Your task to perform on an android device: check data usage Image 0: 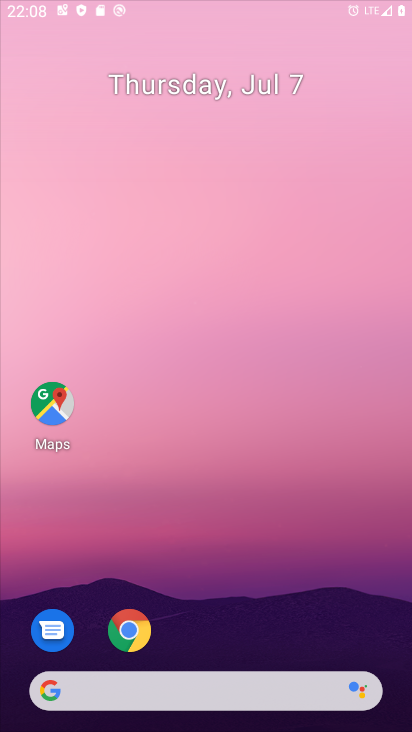
Step 0: drag from (199, 584) to (267, 104)
Your task to perform on an android device: check data usage Image 1: 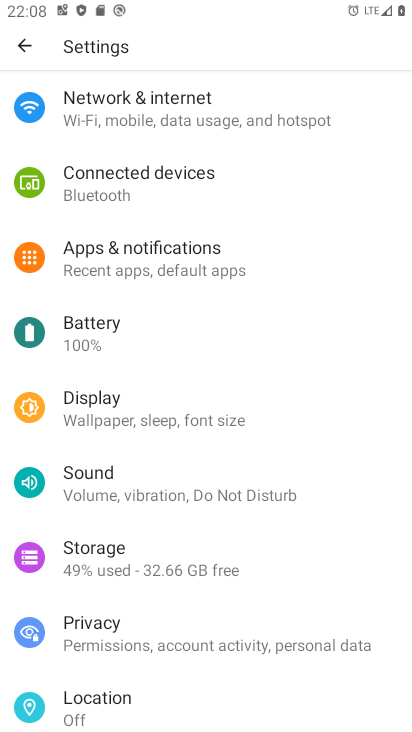
Step 1: click (261, 133)
Your task to perform on an android device: check data usage Image 2: 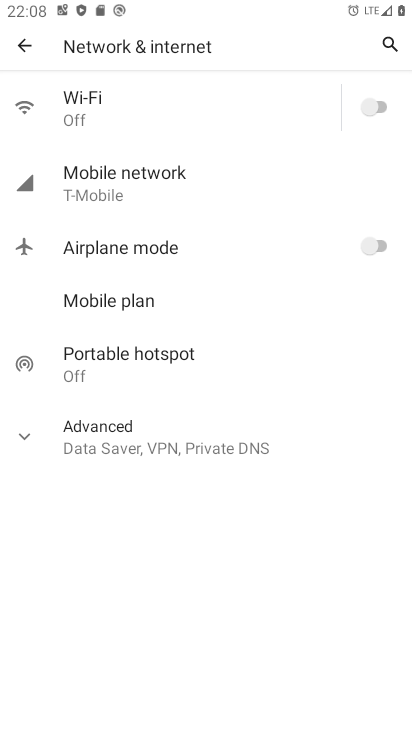
Step 2: drag from (193, 184) to (262, 723)
Your task to perform on an android device: check data usage Image 3: 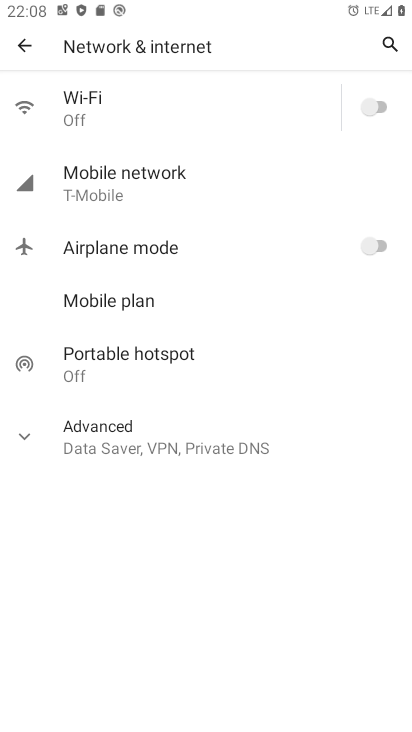
Step 3: click (150, 185)
Your task to perform on an android device: check data usage Image 4: 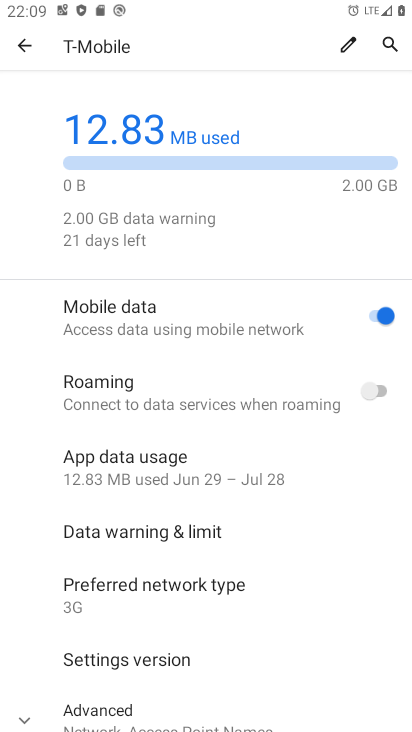
Step 4: drag from (136, 641) to (259, 57)
Your task to perform on an android device: check data usage Image 5: 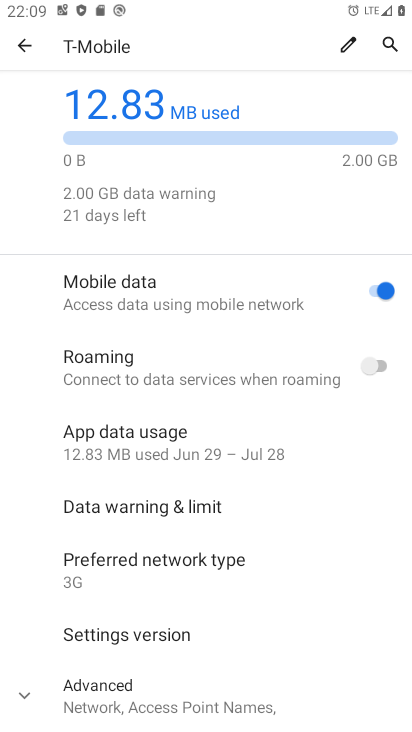
Step 5: drag from (180, 241) to (266, 691)
Your task to perform on an android device: check data usage Image 6: 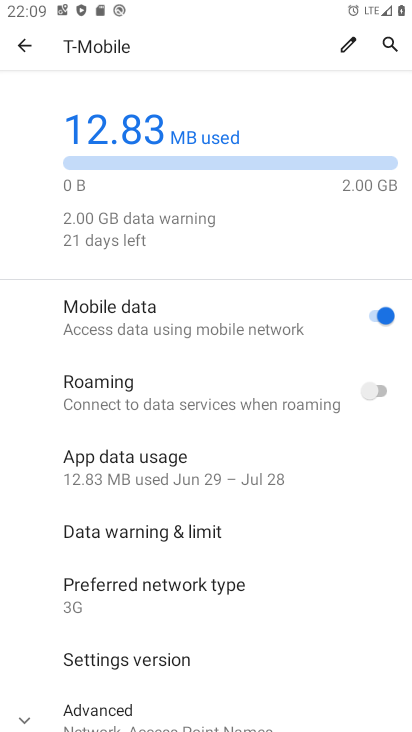
Step 6: drag from (171, 620) to (210, 293)
Your task to perform on an android device: check data usage Image 7: 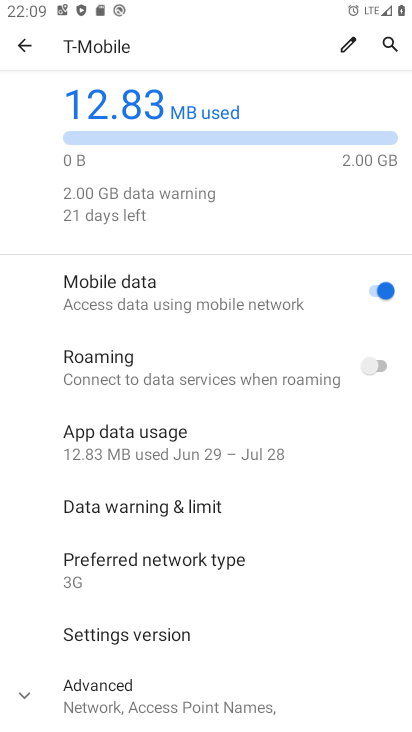
Step 7: drag from (146, 597) to (211, 269)
Your task to perform on an android device: check data usage Image 8: 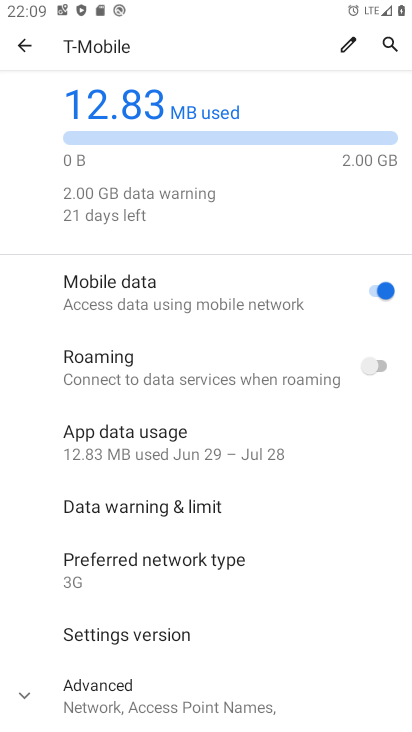
Step 8: click (177, 440)
Your task to perform on an android device: check data usage Image 9: 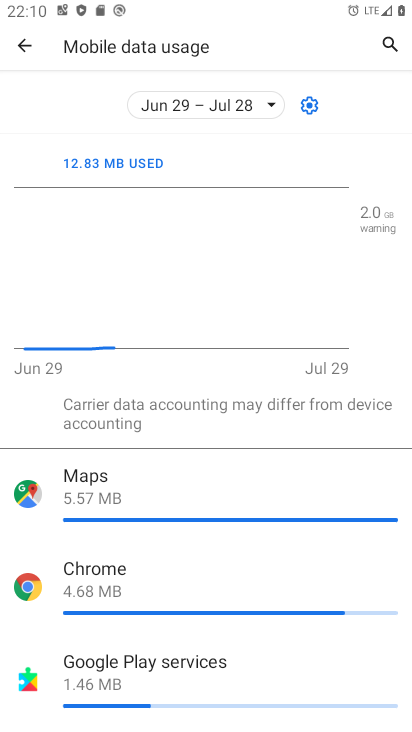
Step 9: task complete